Your task to perform on an android device: delete the emails in spam in the gmail app Image 0: 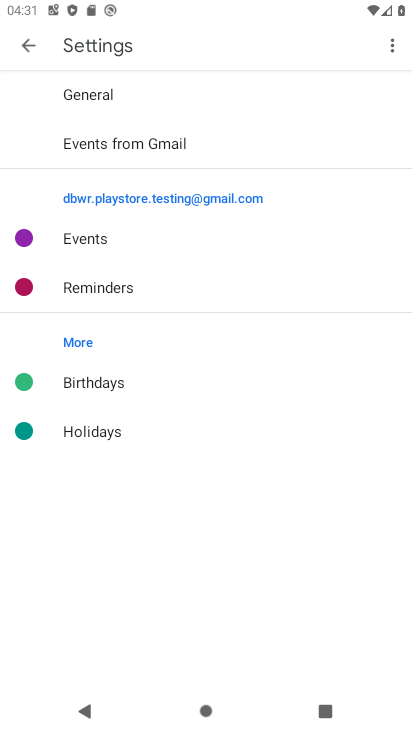
Step 0: press back button
Your task to perform on an android device: delete the emails in spam in the gmail app Image 1: 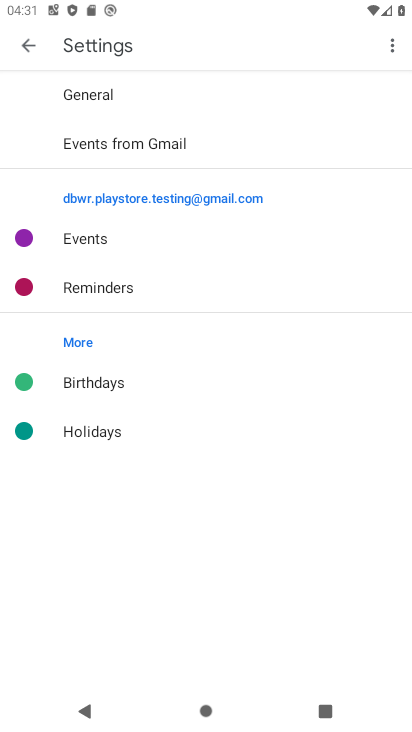
Step 1: press back button
Your task to perform on an android device: delete the emails in spam in the gmail app Image 2: 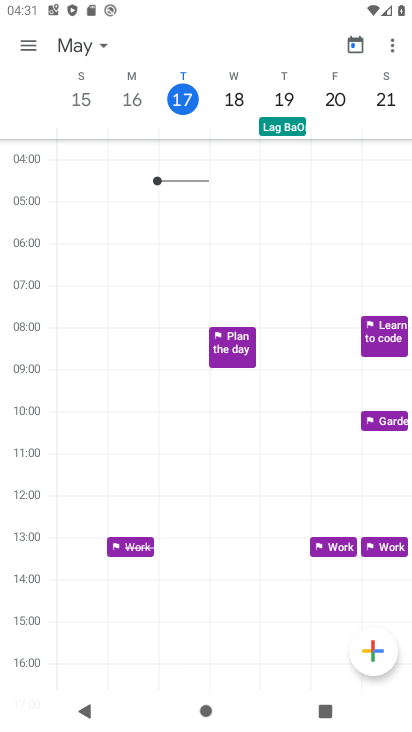
Step 2: press back button
Your task to perform on an android device: delete the emails in spam in the gmail app Image 3: 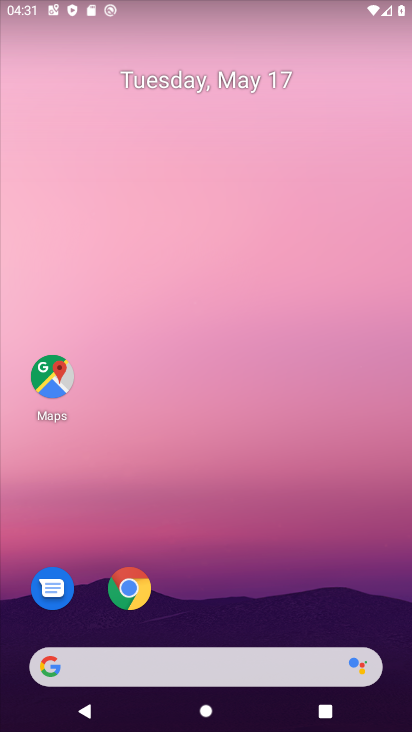
Step 3: drag from (254, 561) to (252, 151)
Your task to perform on an android device: delete the emails in spam in the gmail app Image 4: 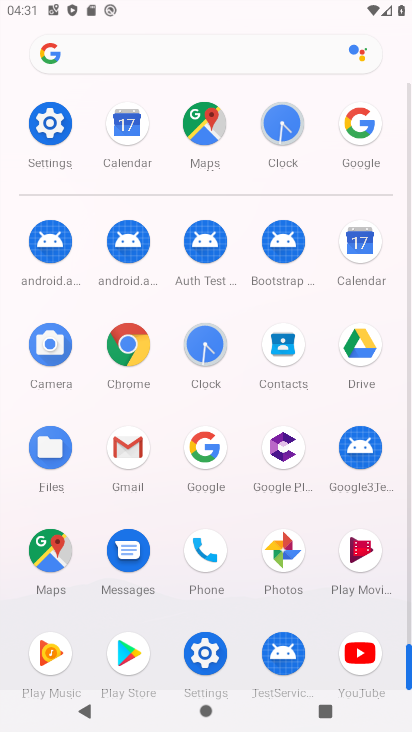
Step 4: click (127, 448)
Your task to perform on an android device: delete the emails in spam in the gmail app Image 5: 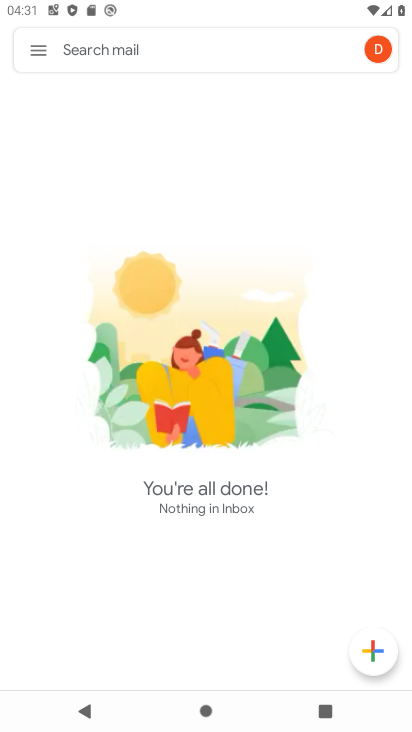
Step 5: click (42, 52)
Your task to perform on an android device: delete the emails in spam in the gmail app Image 6: 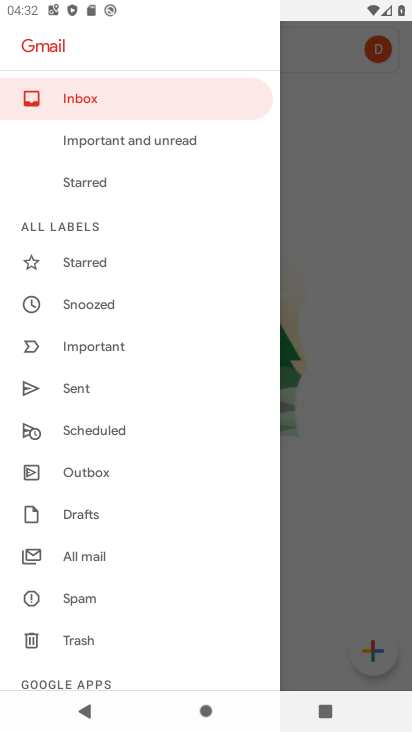
Step 6: drag from (100, 394) to (115, 337)
Your task to perform on an android device: delete the emails in spam in the gmail app Image 7: 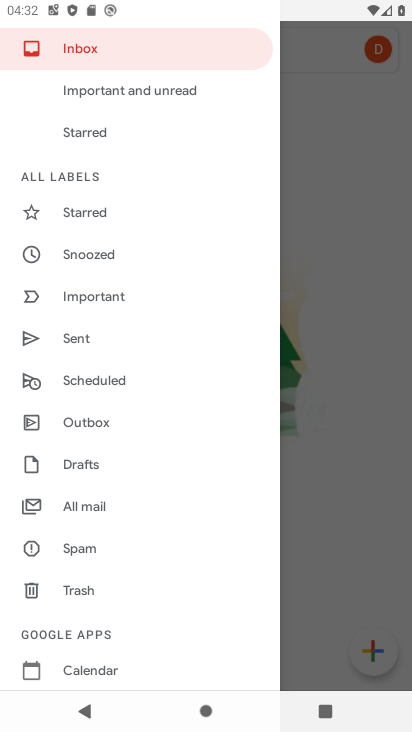
Step 7: drag from (96, 436) to (111, 397)
Your task to perform on an android device: delete the emails in spam in the gmail app Image 8: 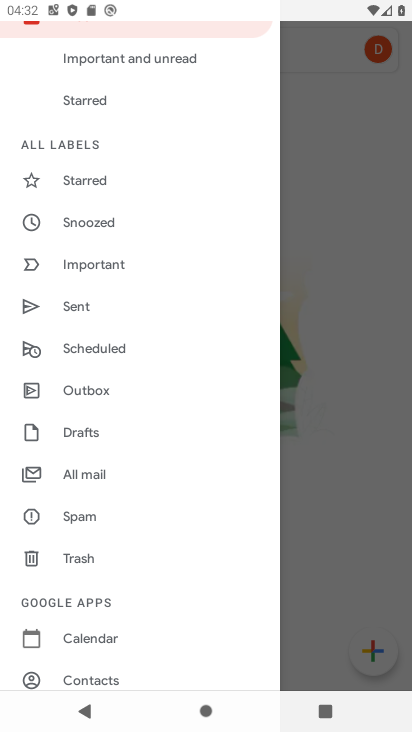
Step 8: drag from (97, 491) to (121, 439)
Your task to perform on an android device: delete the emails in spam in the gmail app Image 9: 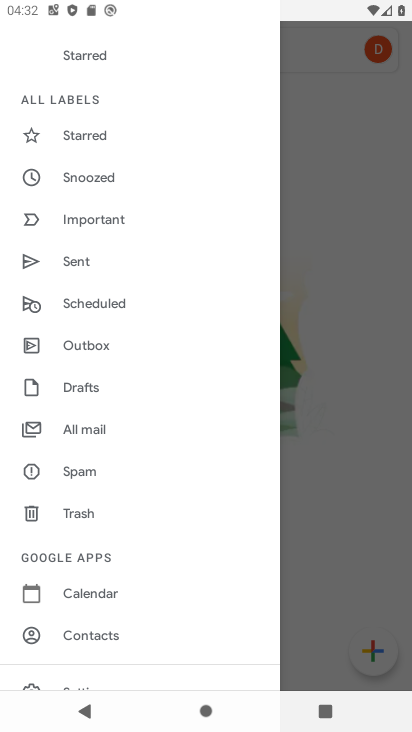
Step 9: click (73, 475)
Your task to perform on an android device: delete the emails in spam in the gmail app Image 10: 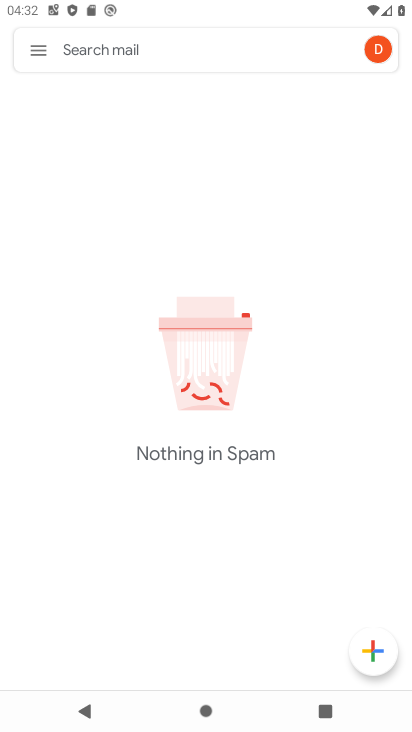
Step 10: task complete